Your task to perform on an android device: What's the weather today? Image 0: 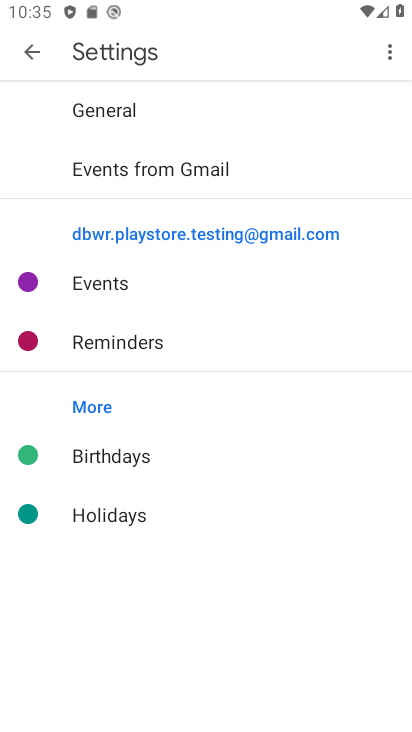
Step 0: press home button
Your task to perform on an android device: What's the weather today? Image 1: 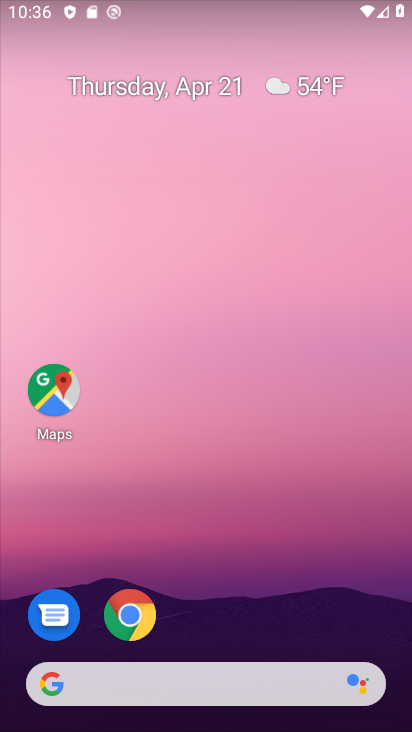
Step 1: drag from (233, 552) to (257, 81)
Your task to perform on an android device: What's the weather today? Image 2: 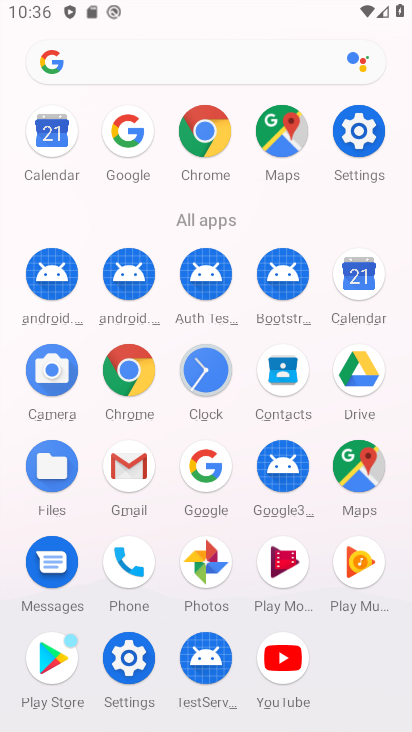
Step 2: click (102, 66)
Your task to perform on an android device: What's the weather today? Image 3: 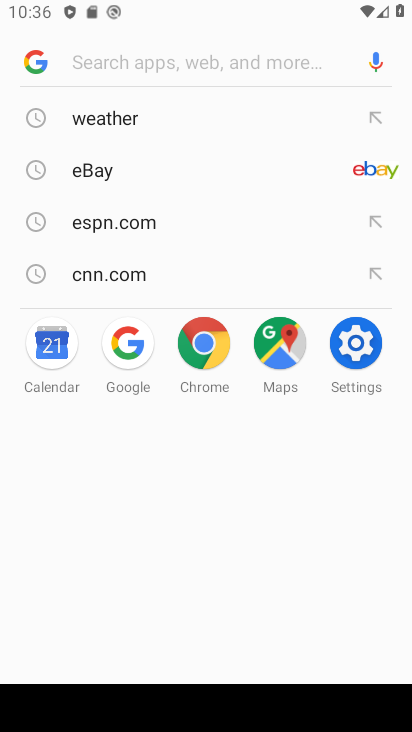
Step 3: type "what's the weather today"
Your task to perform on an android device: What's the weather today? Image 4: 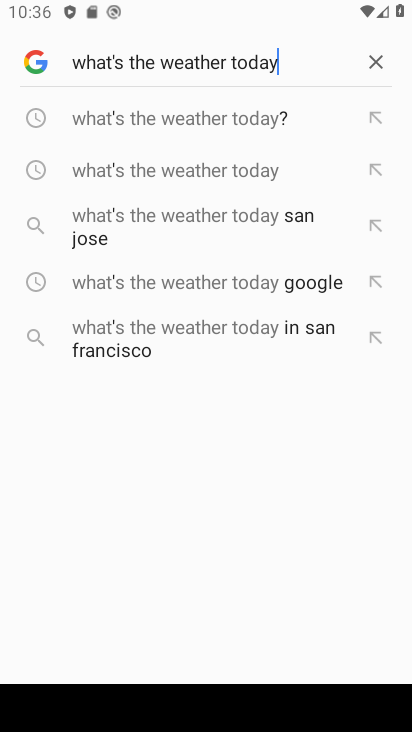
Step 4: click (157, 123)
Your task to perform on an android device: What's the weather today? Image 5: 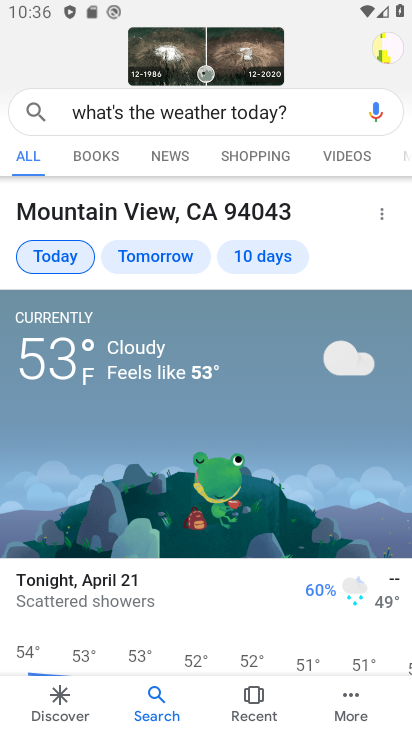
Step 5: task complete